Your task to perform on an android device: Set the phone to "Do not disturb". Image 0: 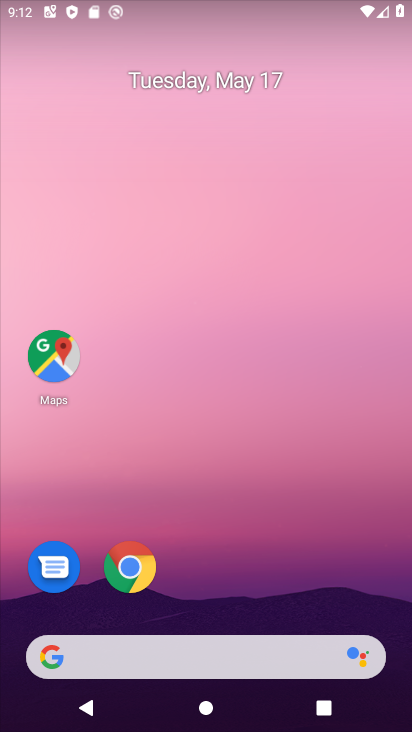
Step 0: drag from (178, 616) to (275, 116)
Your task to perform on an android device: Set the phone to "Do not disturb". Image 1: 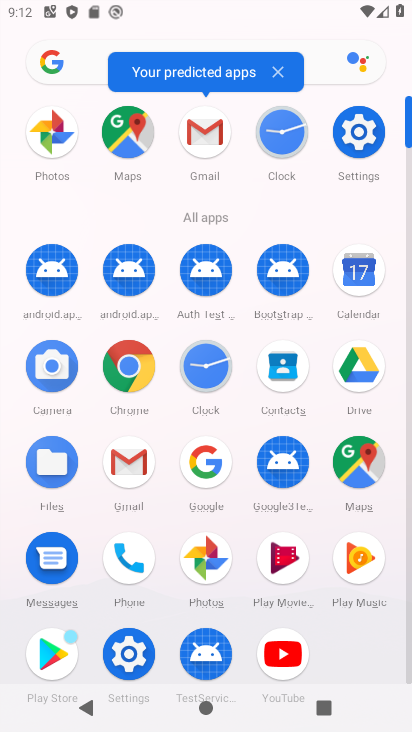
Step 1: click (141, 665)
Your task to perform on an android device: Set the phone to "Do not disturb". Image 2: 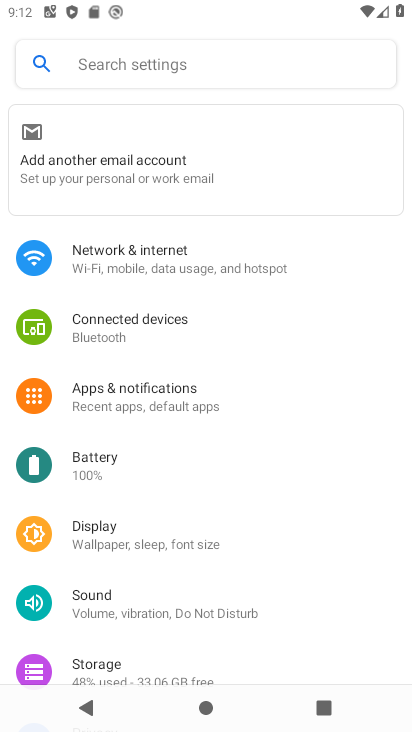
Step 2: click (214, 403)
Your task to perform on an android device: Set the phone to "Do not disturb". Image 3: 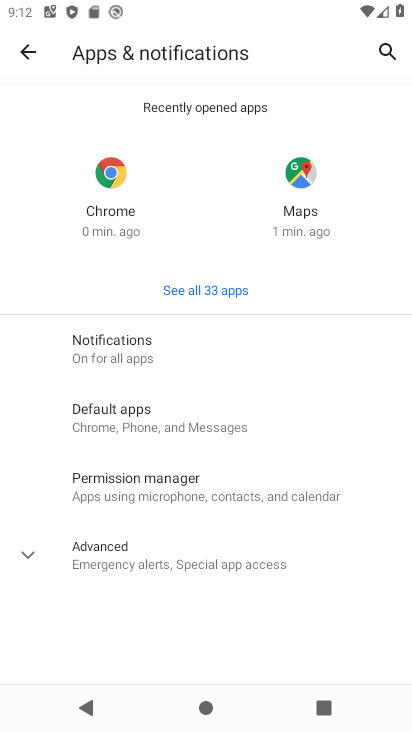
Step 3: click (189, 352)
Your task to perform on an android device: Set the phone to "Do not disturb". Image 4: 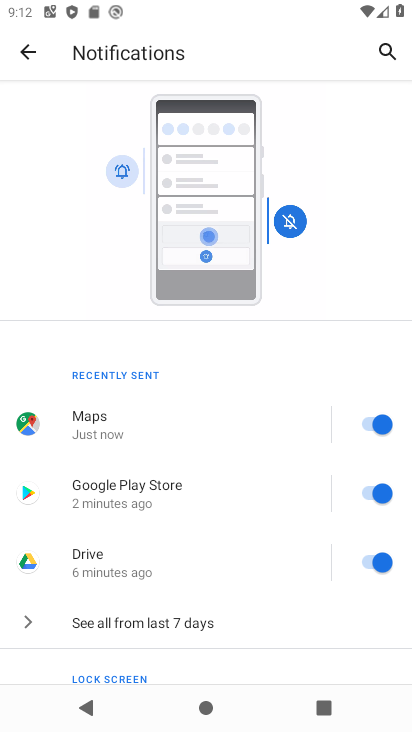
Step 4: drag from (190, 562) to (312, 65)
Your task to perform on an android device: Set the phone to "Do not disturb". Image 5: 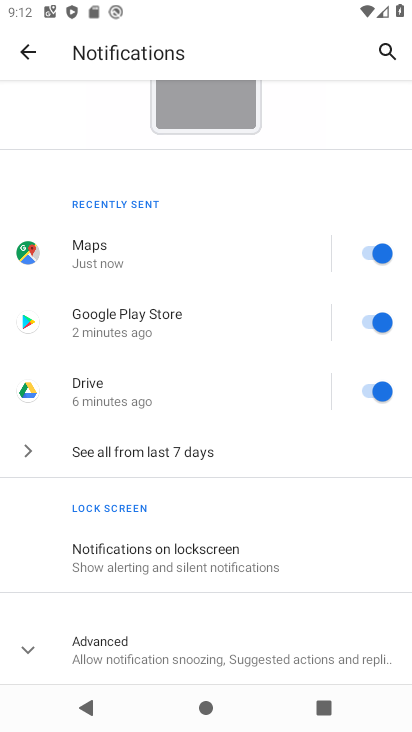
Step 5: click (200, 667)
Your task to perform on an android device: Set the phone to "Do not disturb". Image 6: 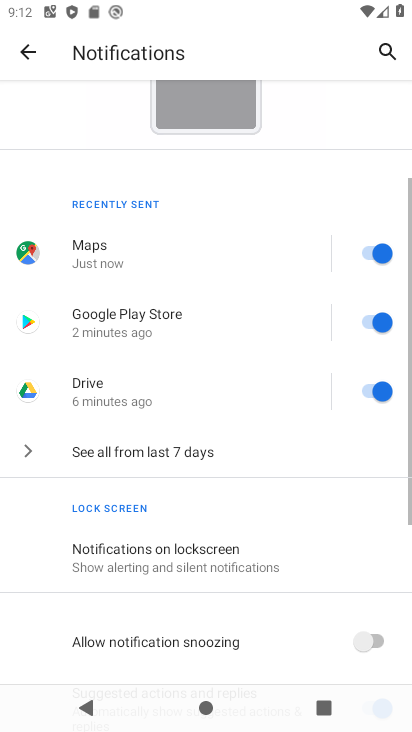
Step 6: drag from (192, 656) to (291, 140)
Your task to perform on an android device: Set the phone to "Do not disturb". Image 7: 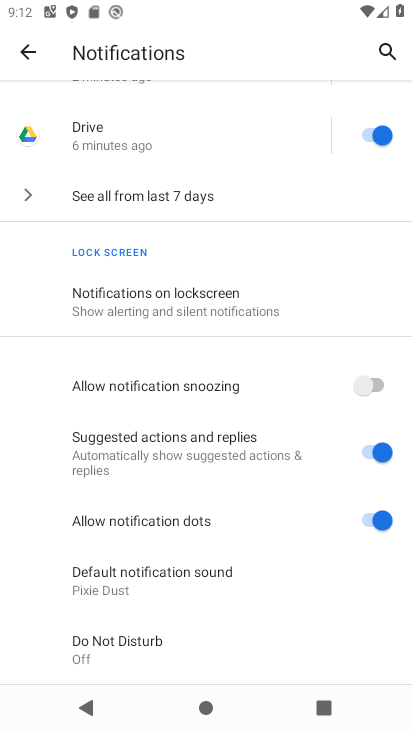
Step 7: click (157, 649)
Your task to perform on an android device: Set the phone to "Do not disturb". Image 8: 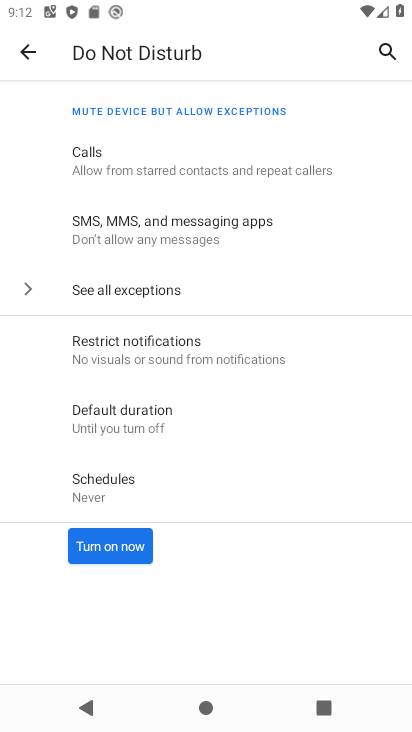
Step 8: click (147, 540)
Your task to perform on an android device: Set the phone to "Do not disturb". Image 9: 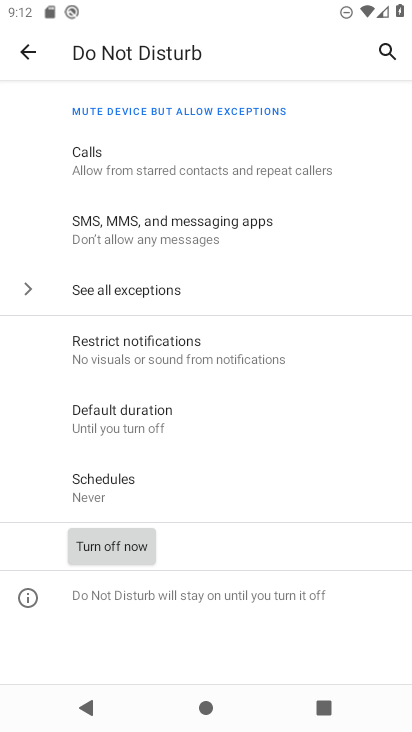
Step 9: task complete